Your task to perform on an android device: check storage Image 0: 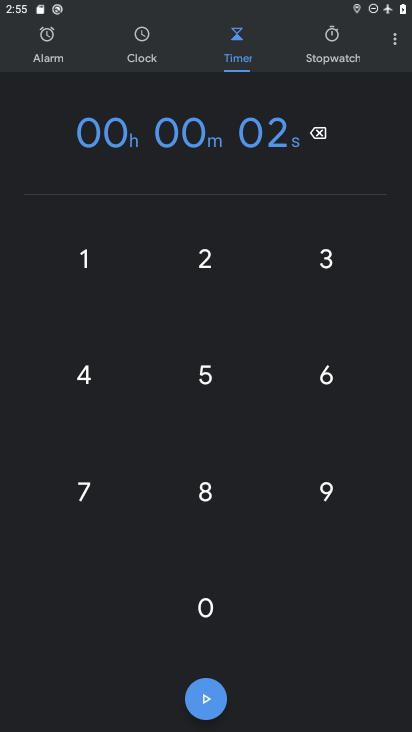
Step 0: press home button
Your task to perform on an android device: check storage Image 1: 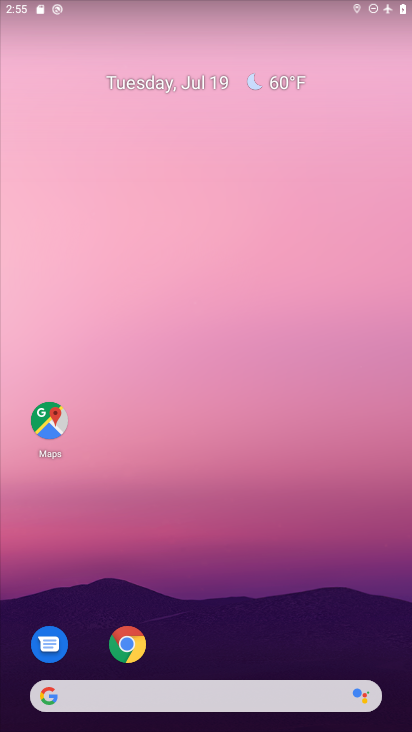
Step 1: drag from (247, 660) to (188, 0)
Your task to perform on an android device: check storage Image 2: 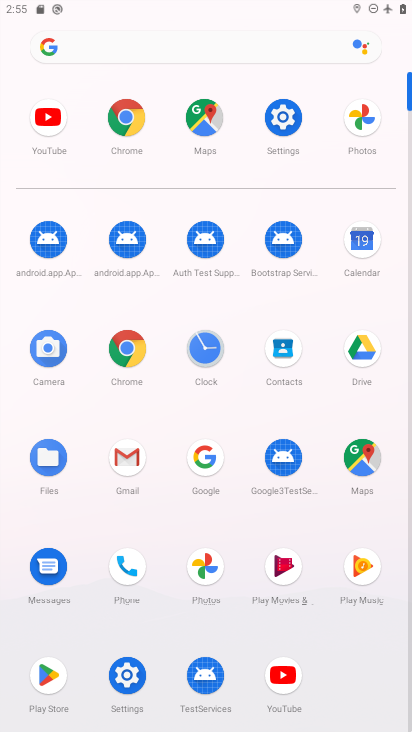
Step 2: click (281, 109)
Your task to perform on an android device: check storage Image 3: 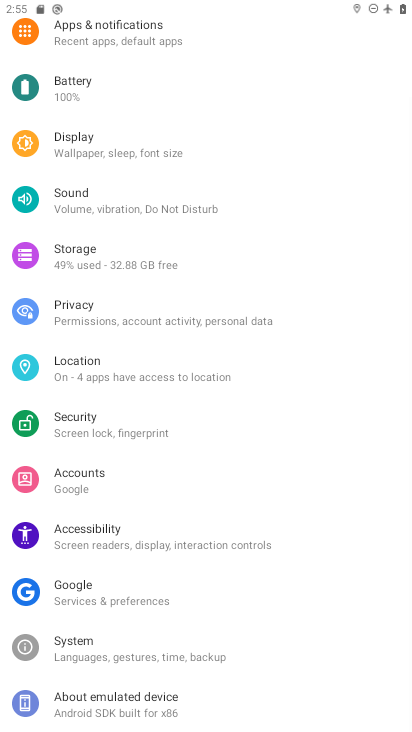
Step 3: click (31, 256)
Your task to perform on an android device: check storage Image 4: 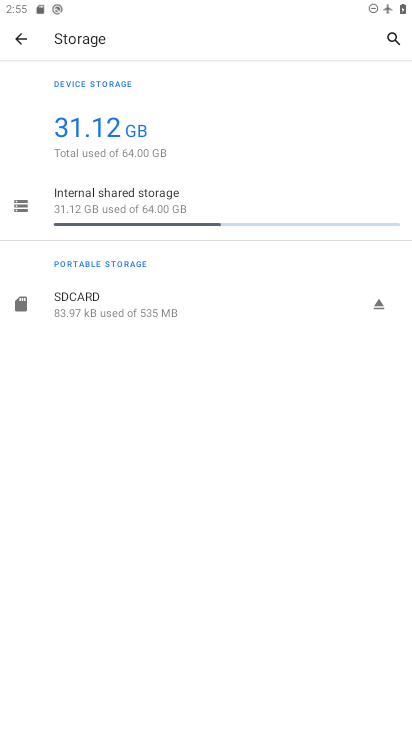
Step 4: click (98, 192)
Your task to perform on an android device: check storage Image 5: 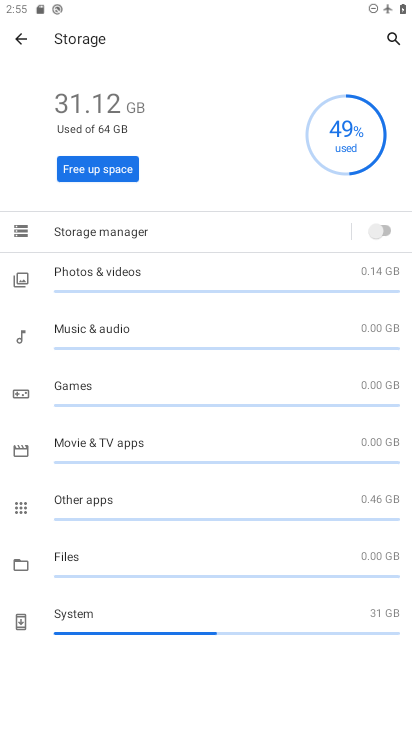
Step 5: task complete